Your task to perform on an android device: turn on translation in the chrome app Image 0: 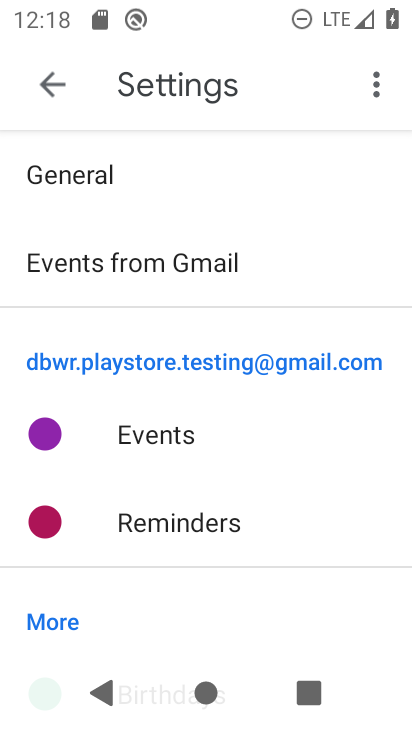
Step 0: press home button
Your task to perform on an android device: turn on translation in the chrome app Image 1: 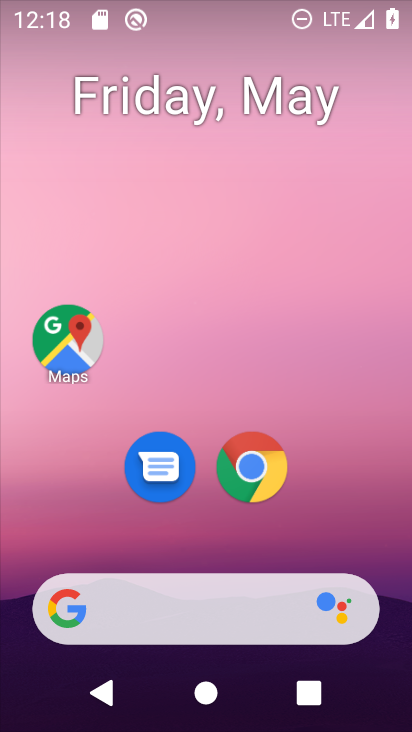
Step 1: drag from (274, 621) to (295, 2)
Your task to perform on an android device: turn on translation in the chrome app Image 2: 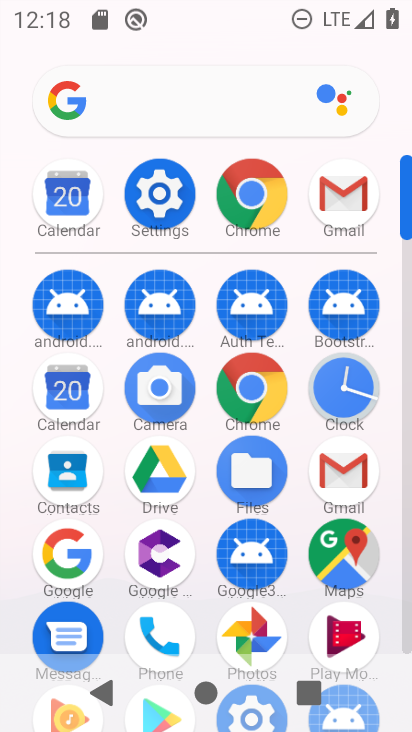
Step 2: click (267, 385)
Your task to perform on an android device: turn on translation in the chrome app Image 3: 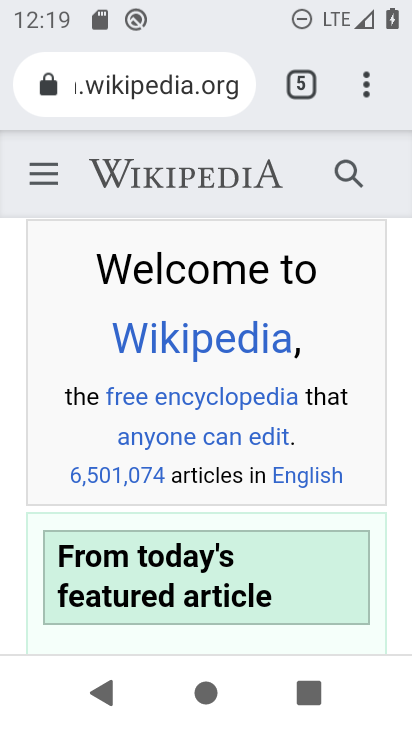
Step 3: drag from (367, 91) to (219, 615)
Your task to perform on an android device: turn on translation in the chrome app Image 4: 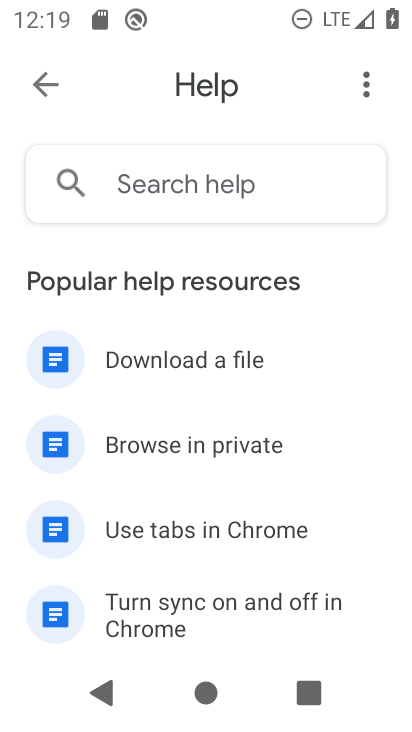
Step 4: click (363, 81)
Your task to perform on an android device: turn on translation in the chrome app Image 5: 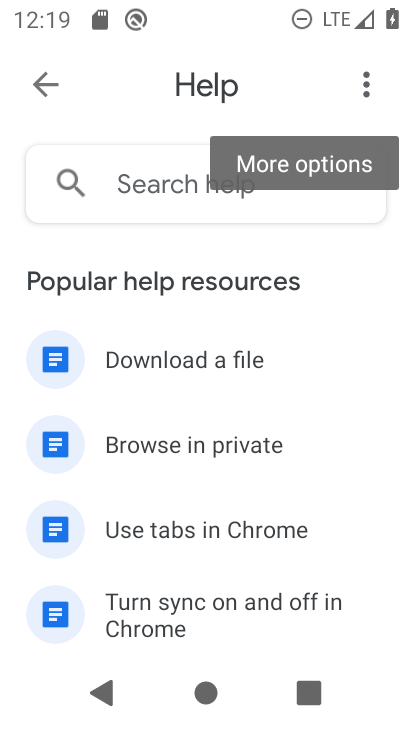
Step 5: press back button
Your task to perform on an android device: turn on translation in the chrome app Image 6: 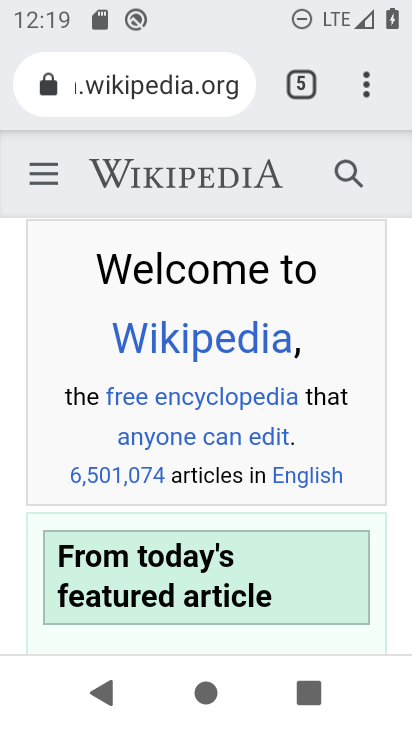
Step 6: drag from (371, 81) to (159, 516)
Your task to perform on an android device: turn on translation in the chrome app Image 7: 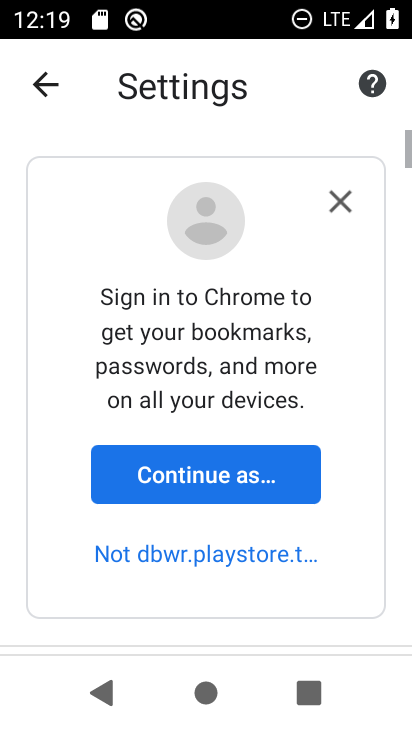
Step 7: drag from (282, 625) to (301, 128)
Your task to perform on an android device: turn on translation in the chrome app Image 8: 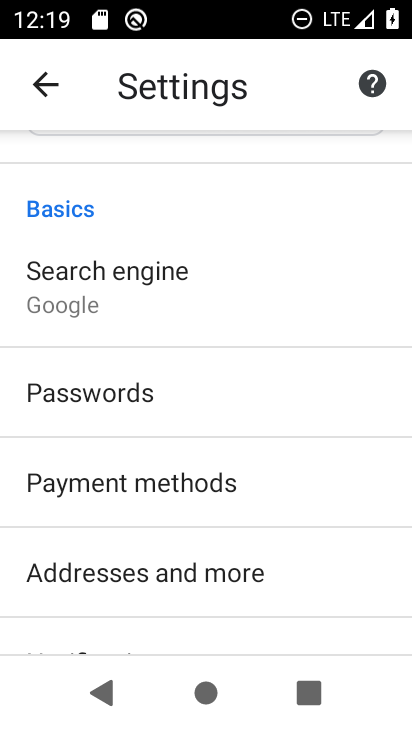
Step 8: drag from (277, 560) to (303, 184)
Your task to perform on an android device: turn on translation in the chrome app Image 9: 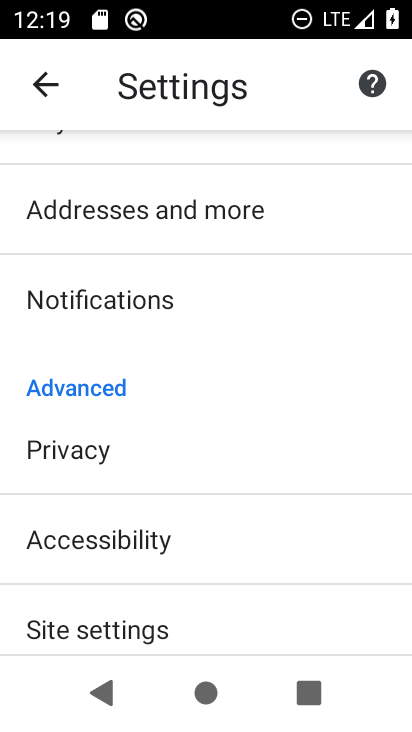
Step 9: drag from (187, 633) to (247, 196)
Your task to perform on an android device: turn on translation in the chrome app Image 10: 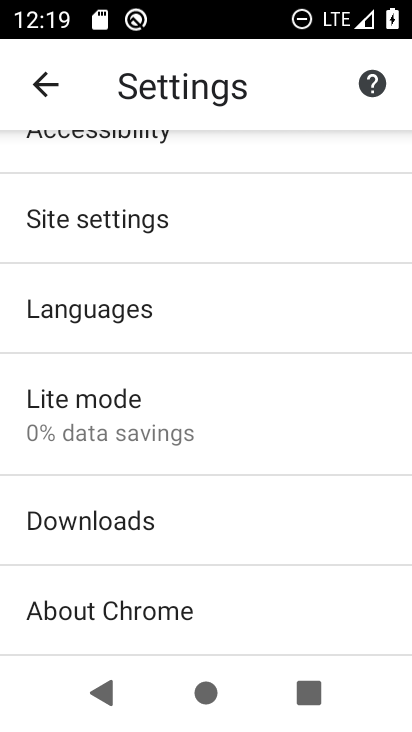
Step 10: click (157, 322)
Your task to perform on an android device: turn on translation in the chrome app Image 11: 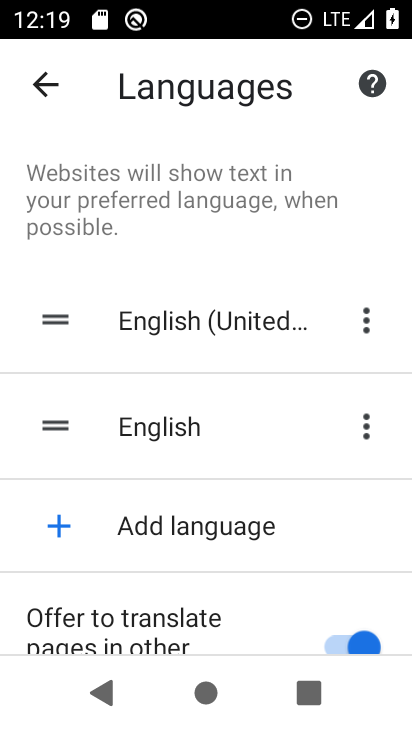
Step 11: task complete